Your task to perform on an android device: Open battery settings Image 0: 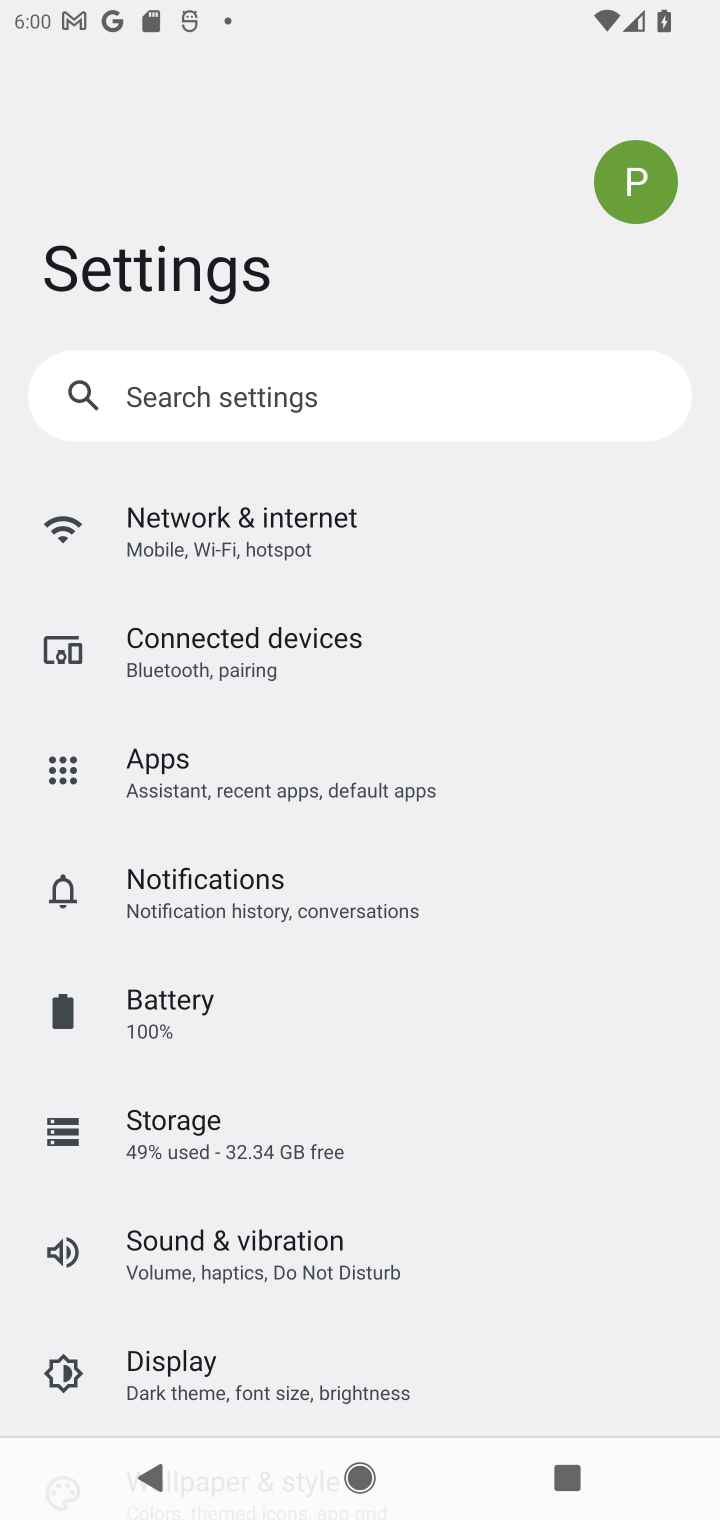
Step 0: click (212, 1036)
Your task to perform on an android device: Open battery settings Image 1: 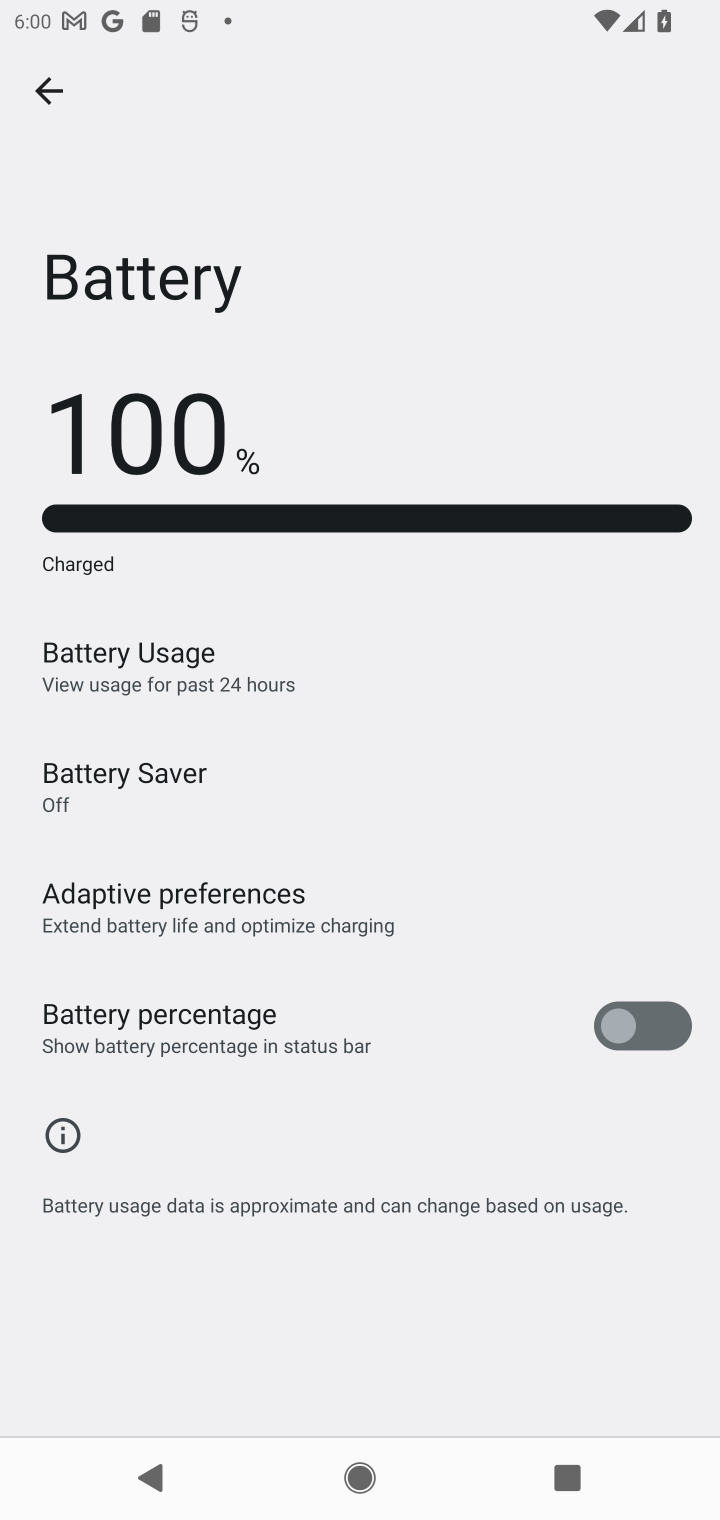
Step 1: task complete